Your task to perform on an android device: Go to network settings Image 0: 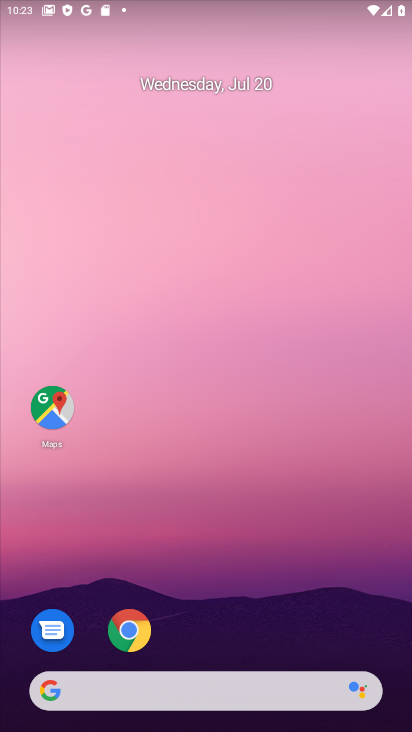
Step 0: drag from (194, 653) to (223, 60)
Your task to perform on an android device: Go to network settings Image 1: 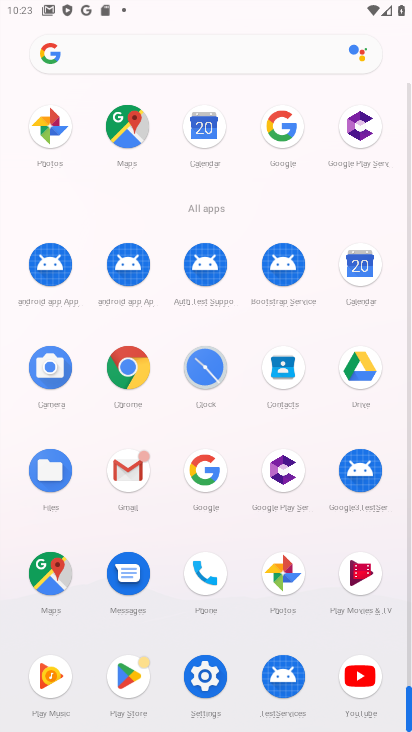
Step 1: click (196, 675)
Your task to perform on an android device: Go to network settings Image 2: 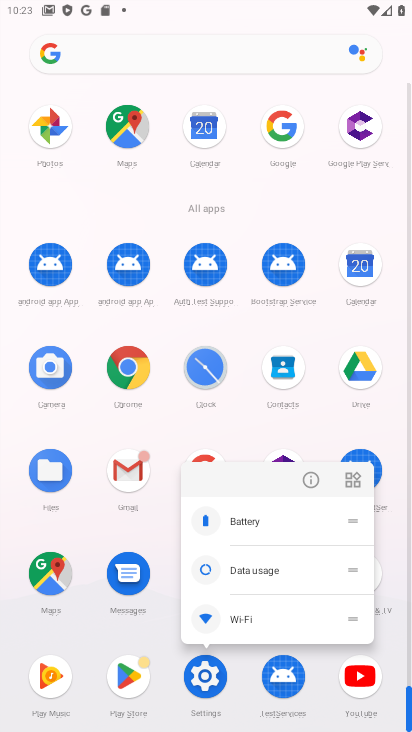
Step 2: click (297, 481)
Your task to perform on an android device: Go to network settings Image 3: 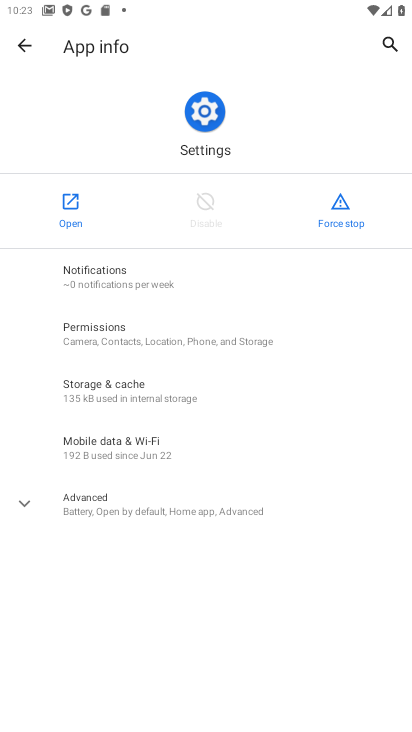
Step 3: click (57, 206)
Your task to perform on an android device: Go to network settings Image 4: 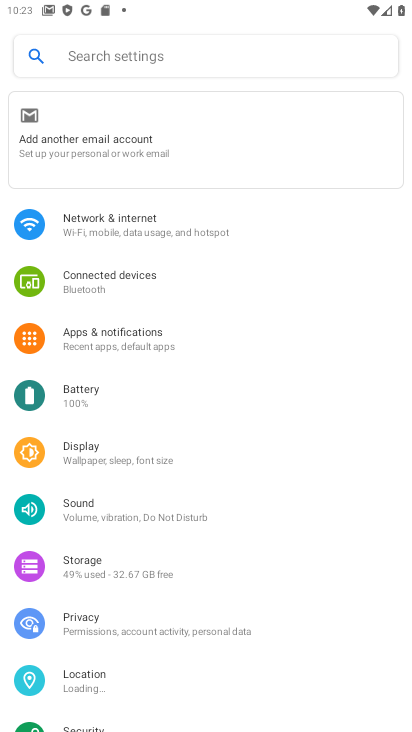
Step 4: click (142, 231)
Your task to perform on an android device: Go to network settings Image 5: 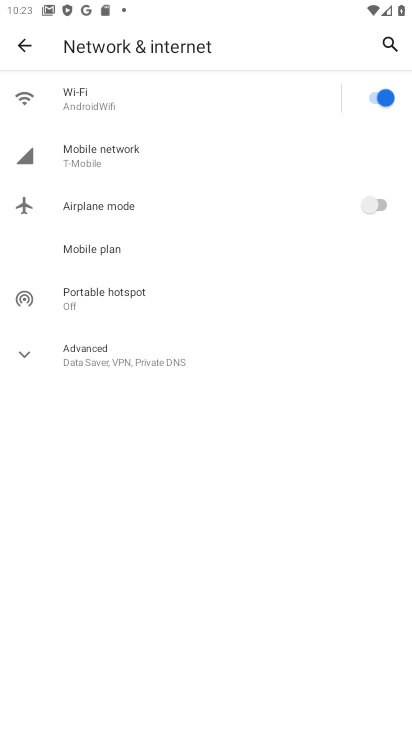
Step 5: task complete